Your task to perform on an android device: turn notification dots off Image 0: 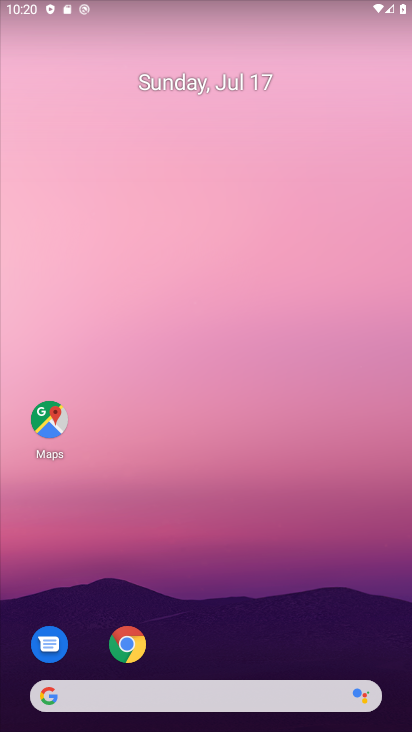
Step 0: drag from (293, 598) to (358, 51)
Your task to perform on an android device: turn notification dots off Image 1: 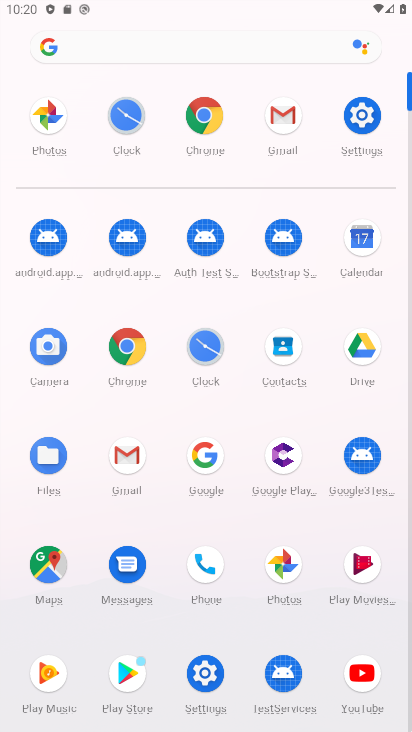
Step 1: click (346, 122)
Your task to perform on an android device: turn notification dots off Image 2: 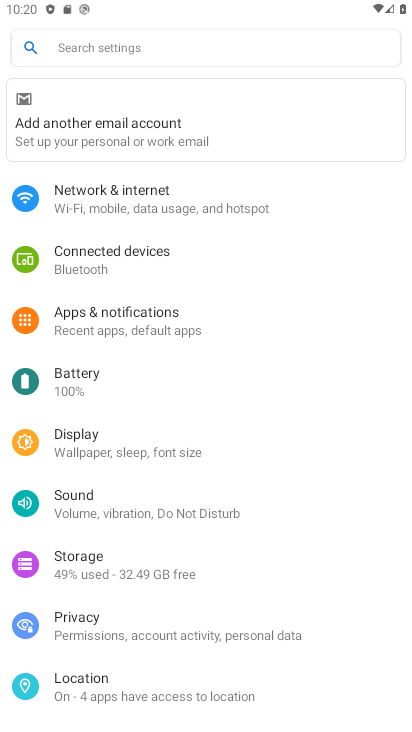
Step 2: click (136, 329)
Your task to perform on an android device: turn notification dots off Image 3: 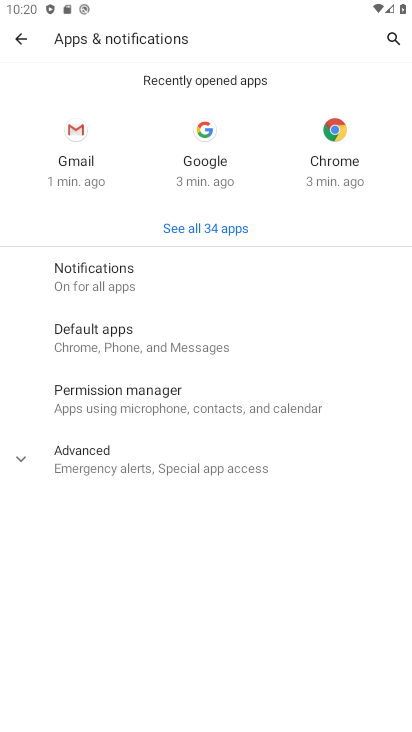
Step 3: click (95, 278)
Your task to perform on an android device: turn notification dots off Image 4: 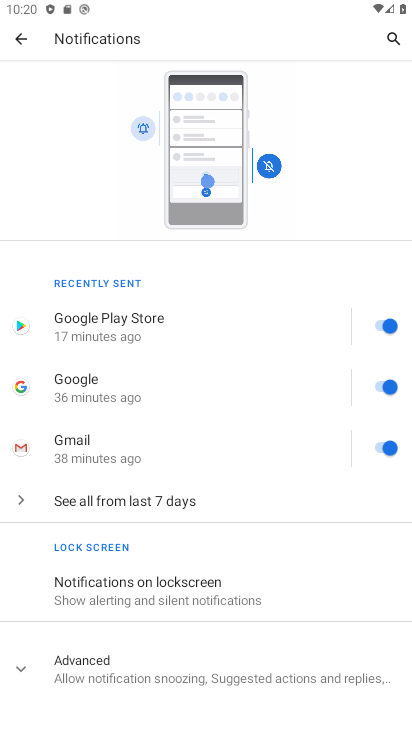
Step 4: drag from (208, 670) to (228, 283)
Your task to perform on an android device: turn notification dots off Image 5: 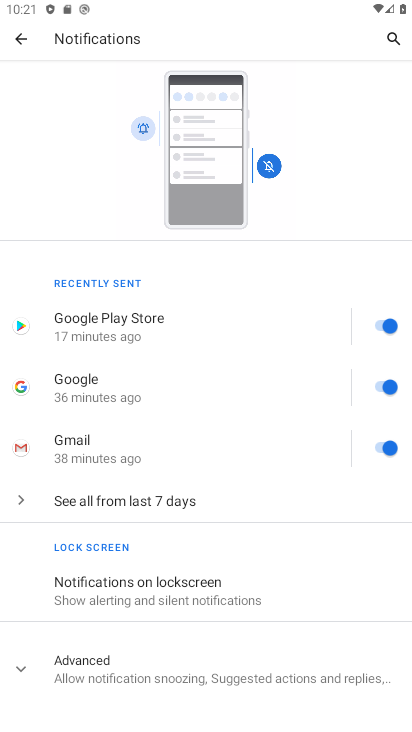
Step 5: click (91, 680)
Your task to perform on an android device: turn notification dots off Image 6: 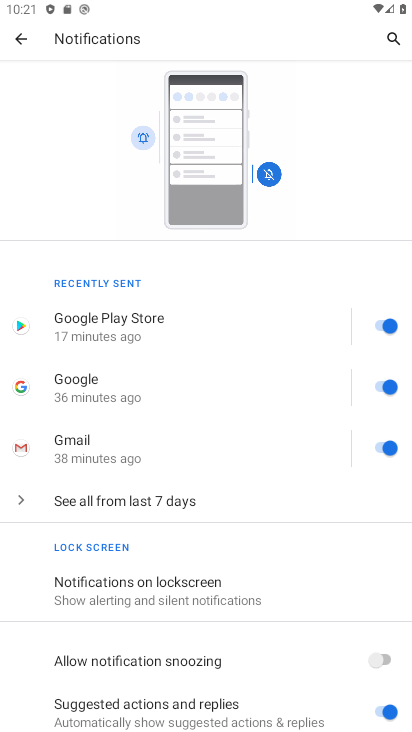
Step 6: drag from (224, 678) to (213, 264)
Your task to perform on an android device: turn notification dots off Image 7: 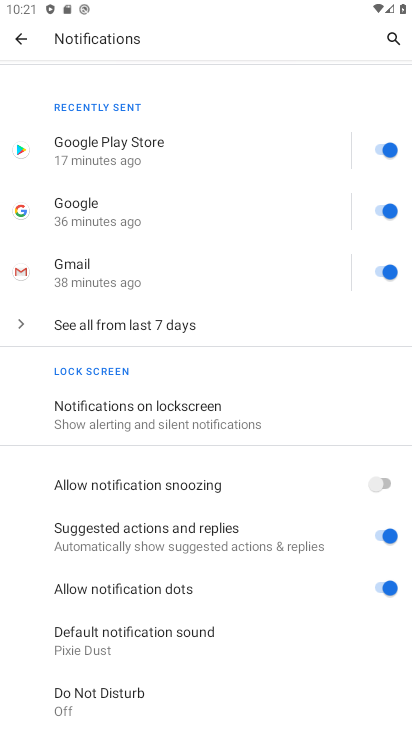
Step 7: click (388, 577)
Your task to perform on an android device: turn notification dots off Image 8: 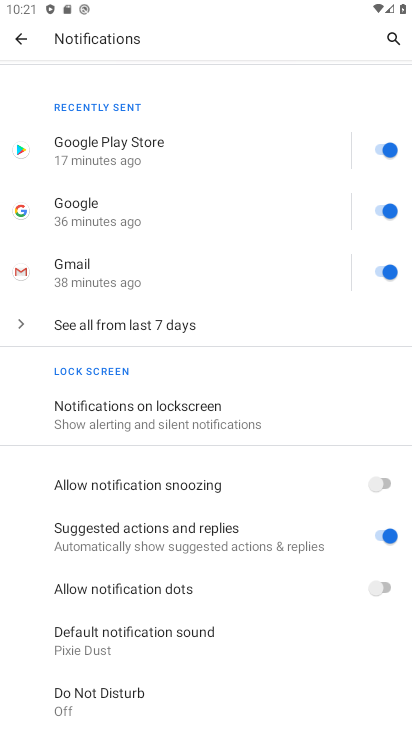
Step 8: task complete